Your task to perform on an android device: turn on sleep mode Image 0: 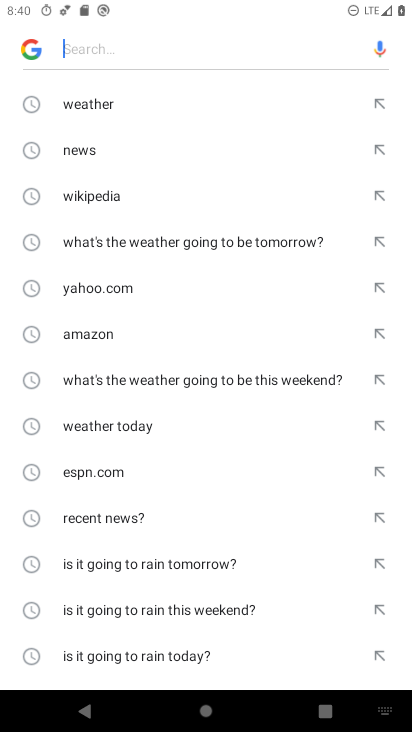
Step 0: press home button
Your task to perform on an android device: turn on sleep mode Image 1: 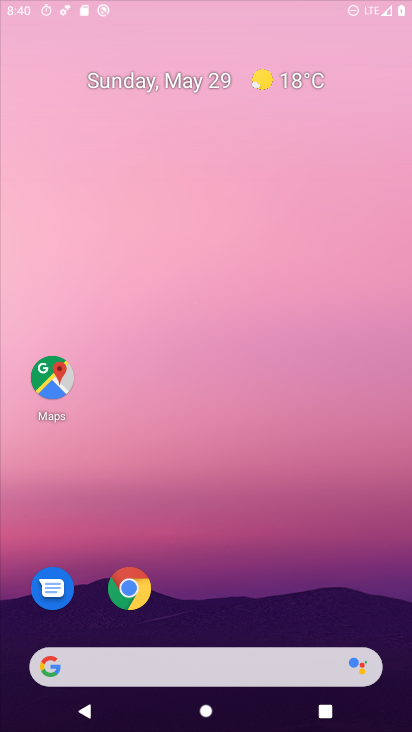
Step 1: drag from (269, 603) to (324, 95)
Your task to perform on an android device: turn on sleep mode Image 2: 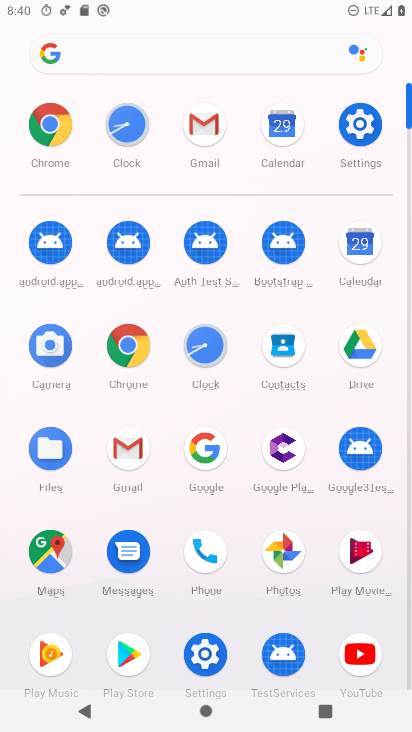
Step 2: click (360, 121)
Your task to perform on an android device: turn on sleep mode Image 3: 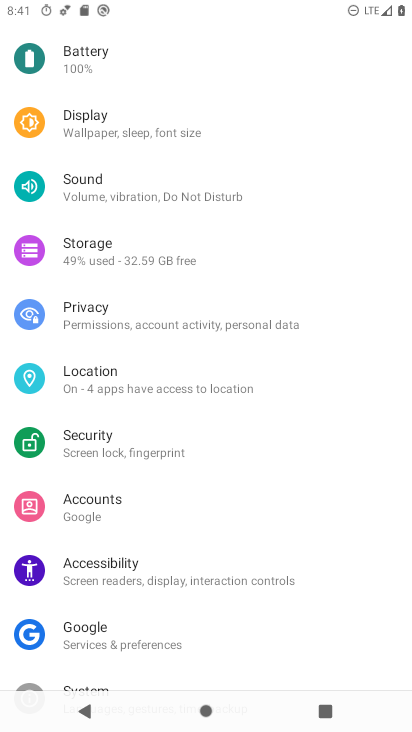
Step 3: click (101, 140)
Your task to perform on an android device: turn on sleep mode Image 4: 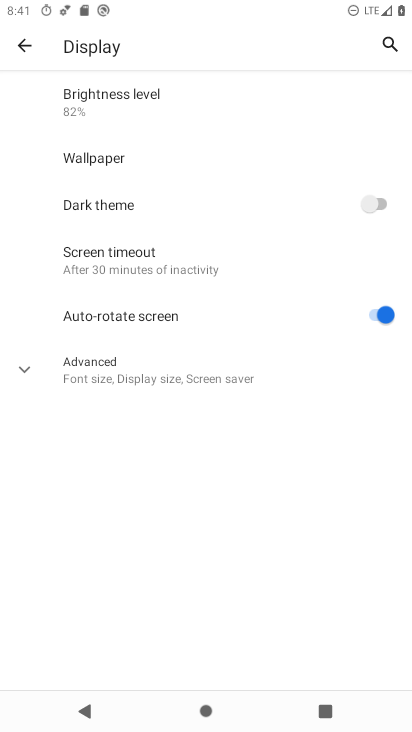
Step 4: click (138, 255)
Your task to perform on an android device: turn on sleep mode Image 5: 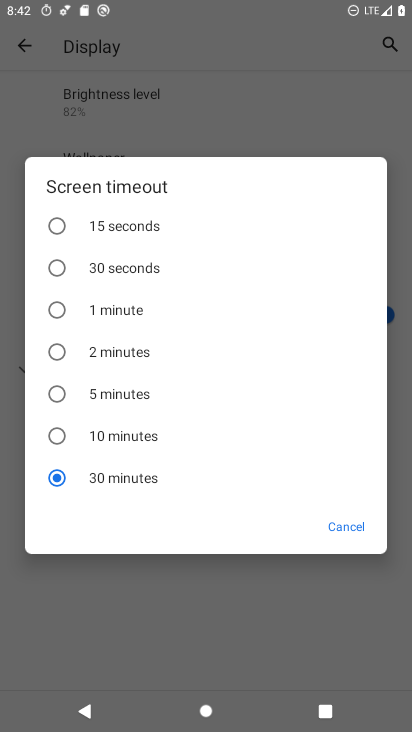
Step 5: task complete